Your task to perform on an android device: Open calendar and show me the third week of next month Image 0: 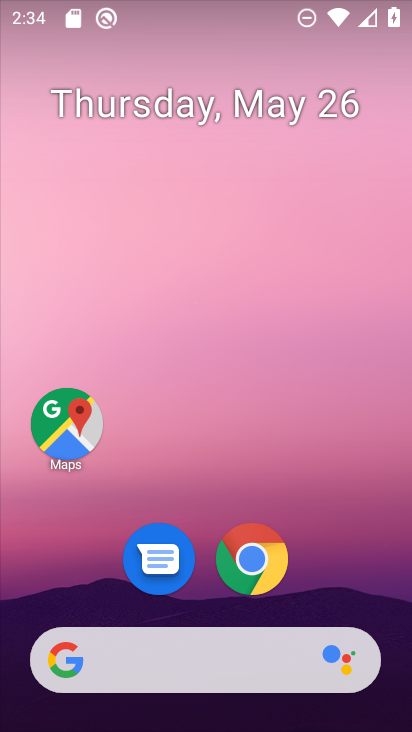
Step 0: drag from (239, 630) to (404, 436)
Your task to perform on an android device: Open calendar and show me the third week of next month Image 1: 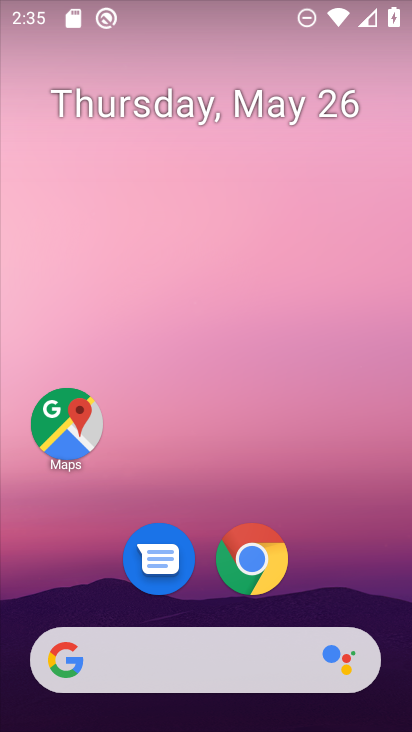
Step 1: drag from (215, 666) to (375, 182)
Your task to perform on an android device: Open calendar and show me the third week of next month Image 2: 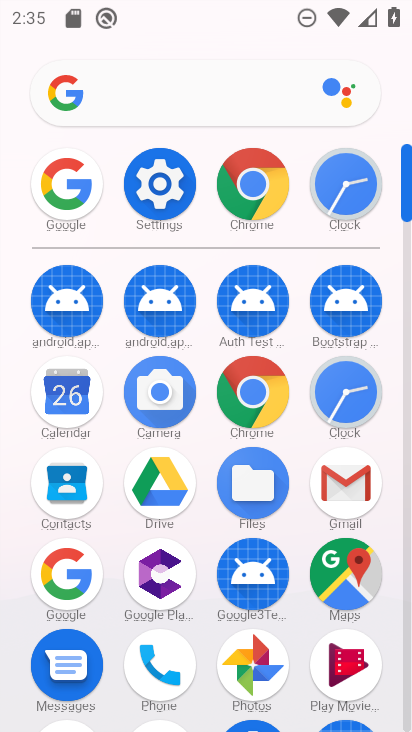
Step 2: click (58, 405)
Your task to perform on an android device: Open calendar and show me the third week of next month Image 3: 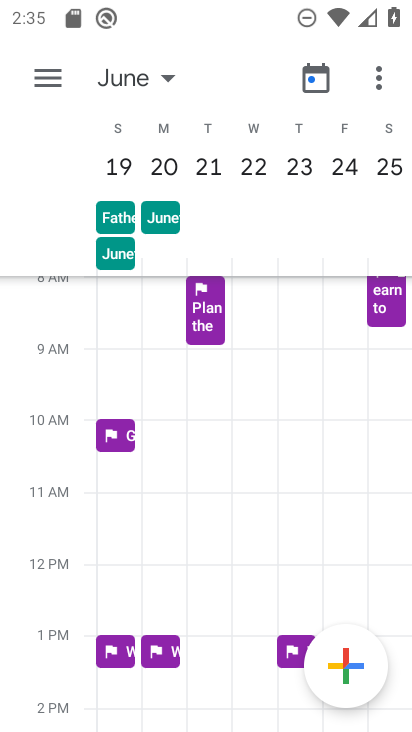
Step 3: click (143, 91)
Your task to perform on an android device: Open calendar and show me the third week of next month Image 4: 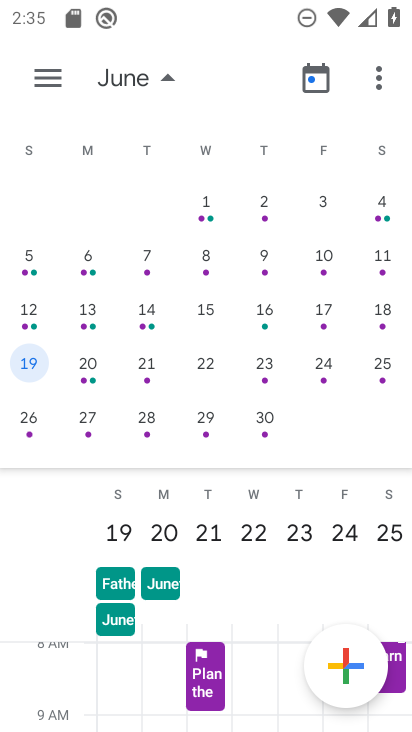
Step 4: click (28, 304)
Your task to perform on an android device: Open calendar and show me the third week of next month Image 5: 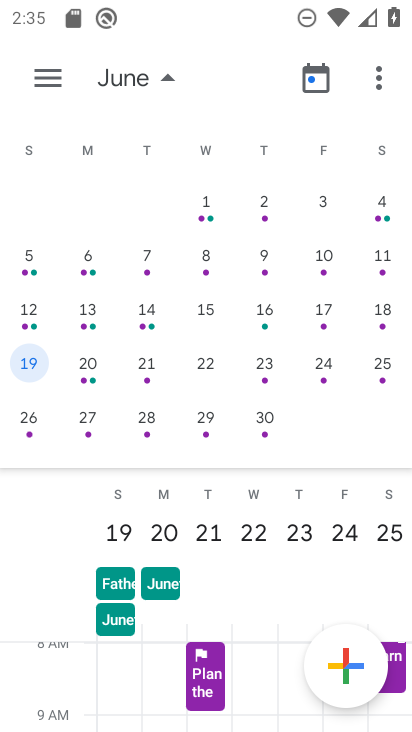
Step 5: click (36, 316)
Your task to perform on an android device: Open calendar and show me the third week of next month Image 6: 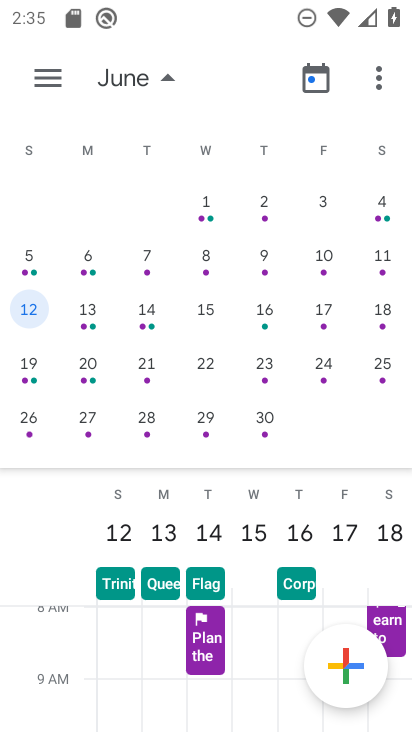
Step 6: click (60, 79)
Your task to perform on an android device: Open calendar and show me the third week of next month Image 7: 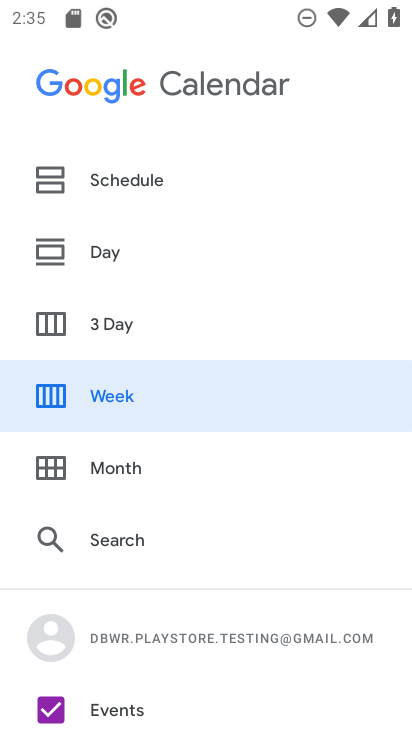
Step 7: click (128, 397)
Your task to perform on an android device: Open calendar and show me the third week of next month Image 8: 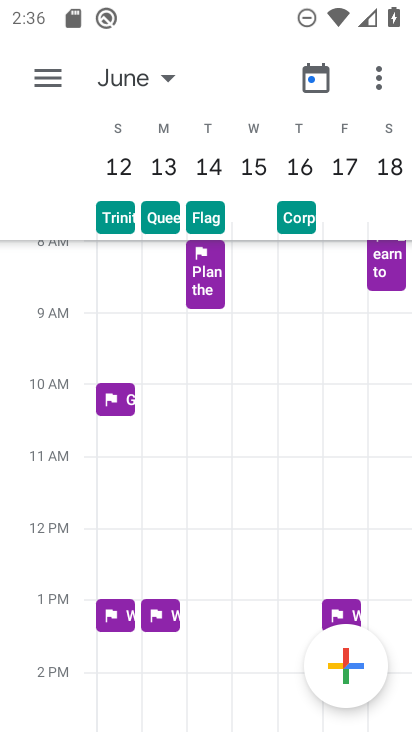
Step 8: task complete